Your task to perform on an android device: turn on improve location accuracy Image 0: 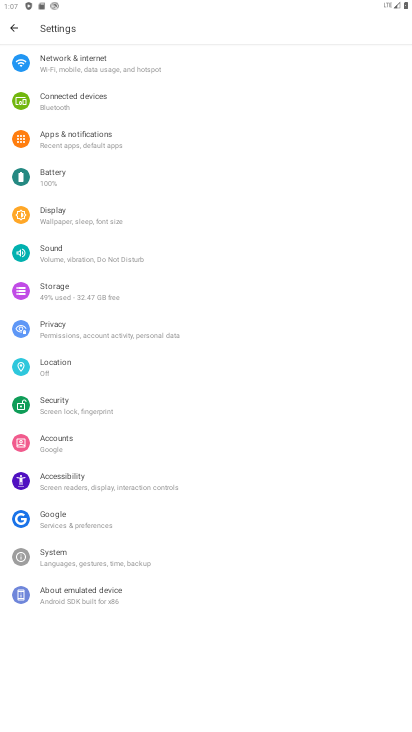
Step 0: press home button
Your task to perform on an android device: turn on improve location accuracy Image 1: 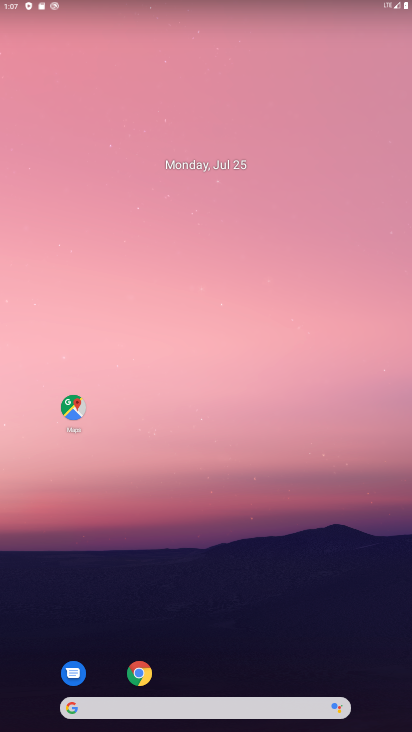
Step 1: drag from (367, 668) to (338, 206)
Your task to perform on an android device: turn on improve location accuracy Image 2: 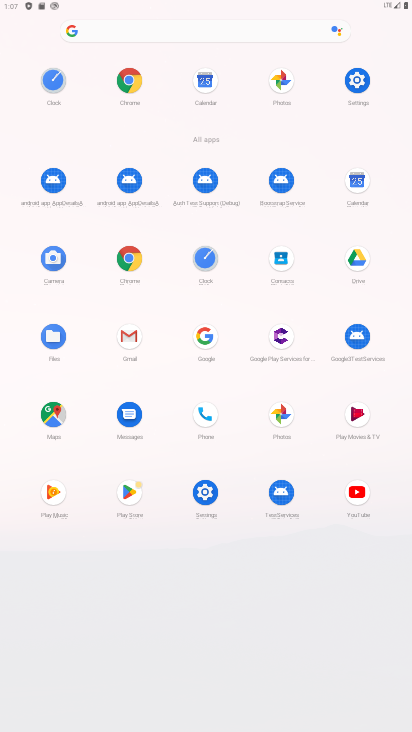
Step 2: click (204, 490)
Your task to perform on an android device: turn on improve location accuracy Image 3: 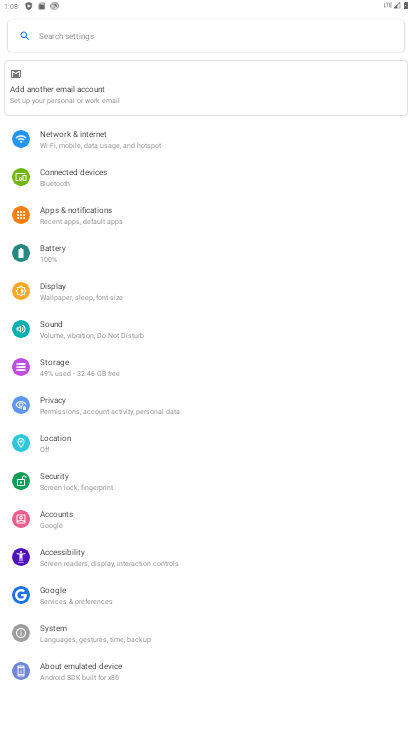
Step 3: click (48, 435)
Your task to perform on an android device: turn on improve location accuracy Image 4: 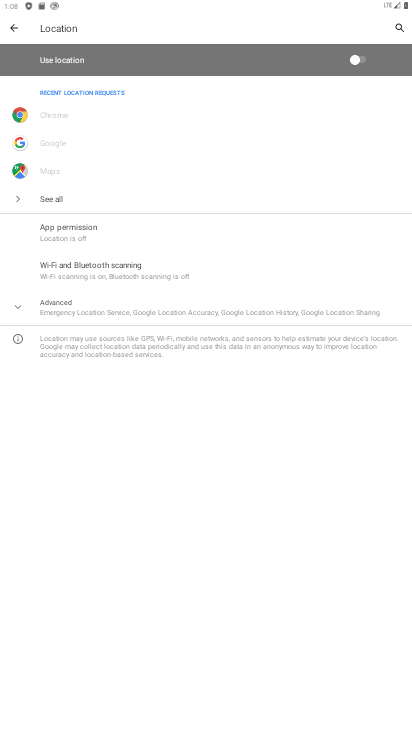
Step 4: click (15, 302)
Your task to perform on an android device: turn on improve location accuracy Image 5: 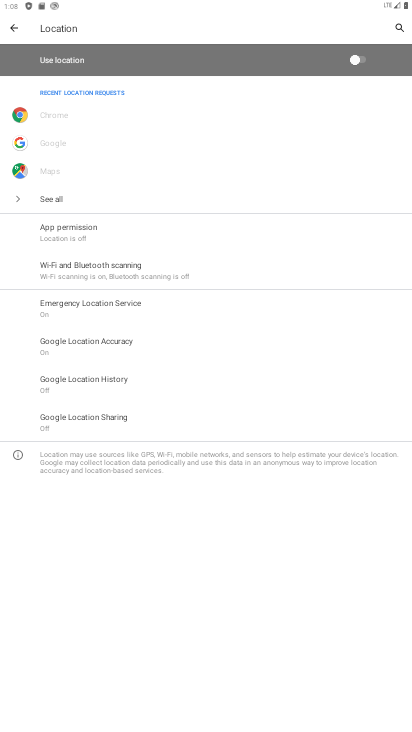
Step 5: click (88, 337)
Your task to perform on an android device: turn on improve location accuracy Image 6: 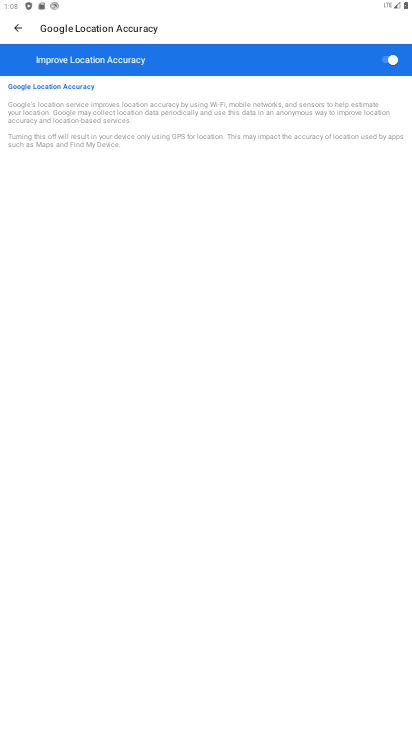
Step 6: task complete